Your task to perform on an android device: Go to battery settings Image 0: 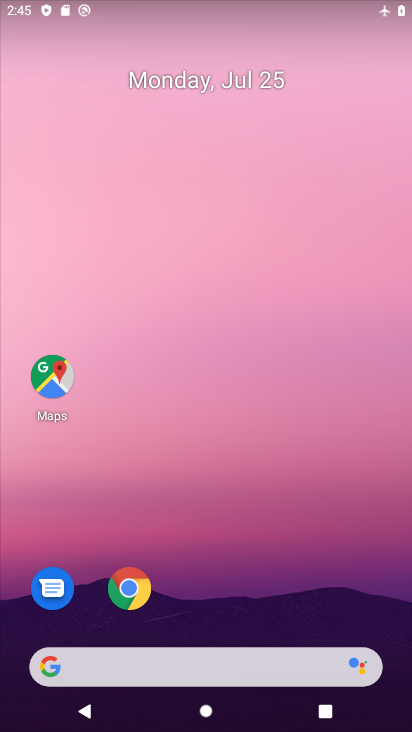
Step 0: drag from (233, 722) to (233, 134)
Your task to perform on an android device: Go to battery settings Image 1: 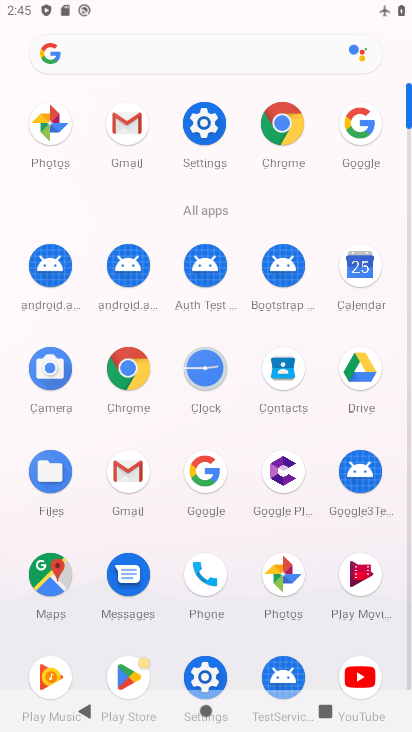
Step 1: click (203, 127)
Your task to perform on an android device: Go to battery settings Image 2: 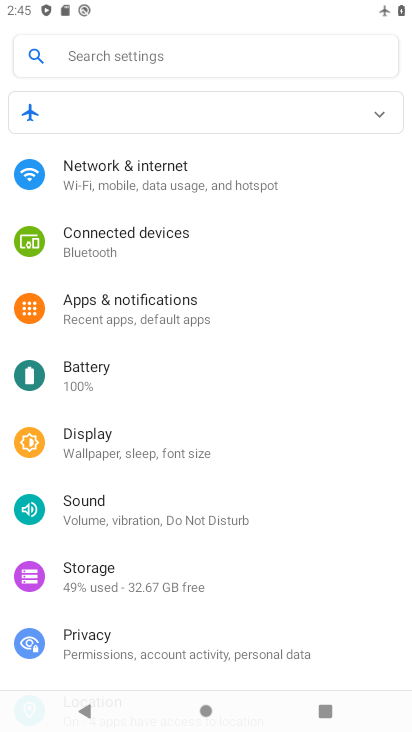
Step 2: click (76, 368)
Your task to perform on an android device: Go to battery settings Image 3: 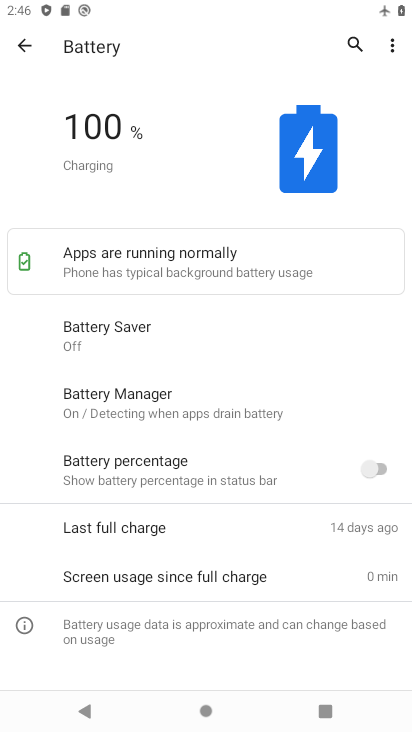
Step 3: task complete